Your task to perform on an android device: delete browsing data in the chrome app Image 0: 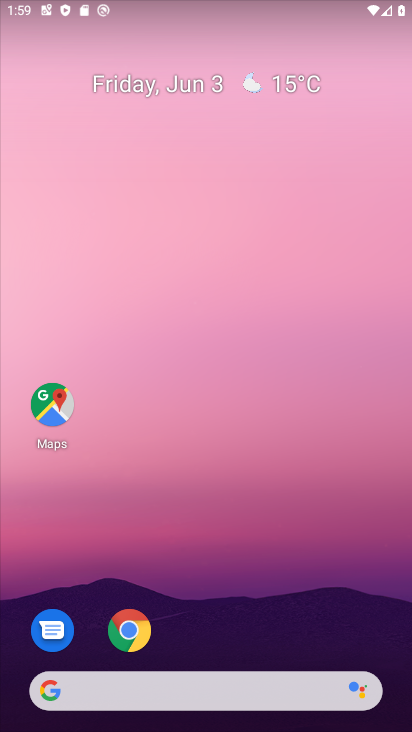
Step 0: drag from (224, 350) to (201, 10)
Your task to perform on an android device: delete browsing data in the chrome app Image 1: 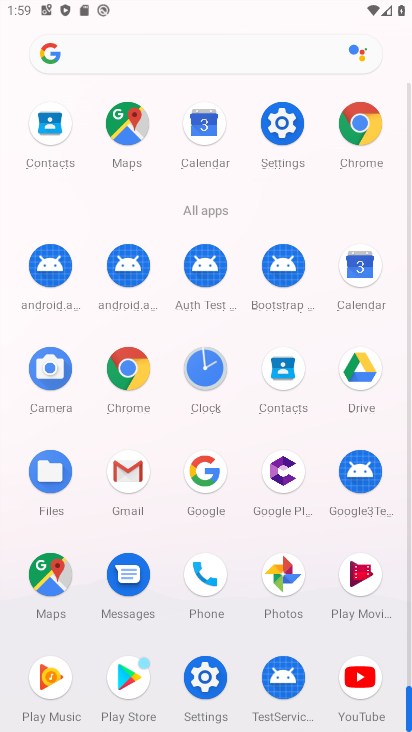
Step 1: drag from (15, 537) to (9, 181)
Your task to perform on an android device: delete browsing data in the chrome app Image 2: 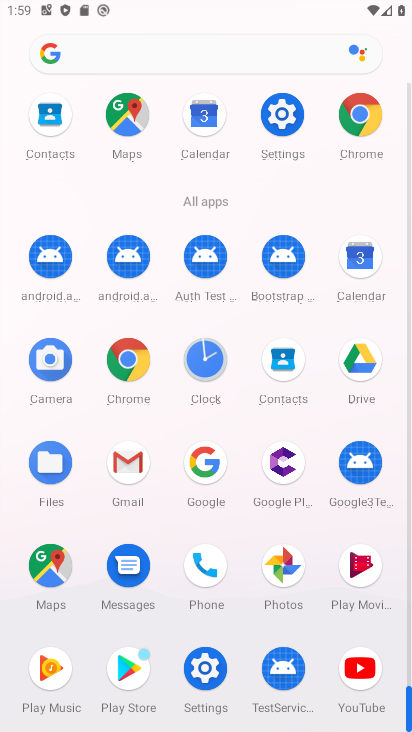
Step 2: click (125, 354)
Your task to perform on an android device: delete browsing data in the chrome app Image 3: 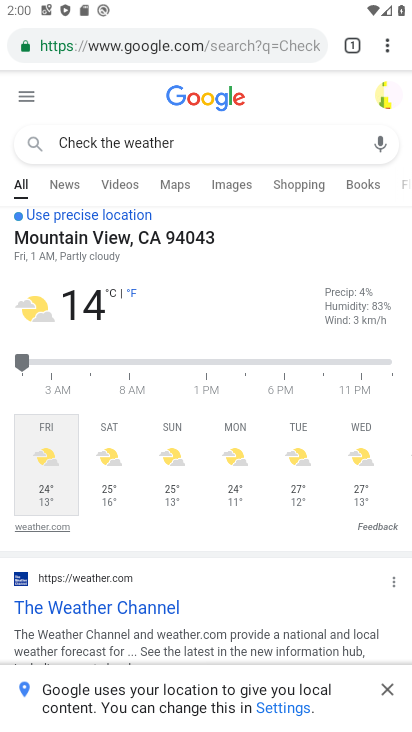
Step 3: click (138, 44)
Your task to perform on an android device: delete browsing data in the chrome app Image 4: 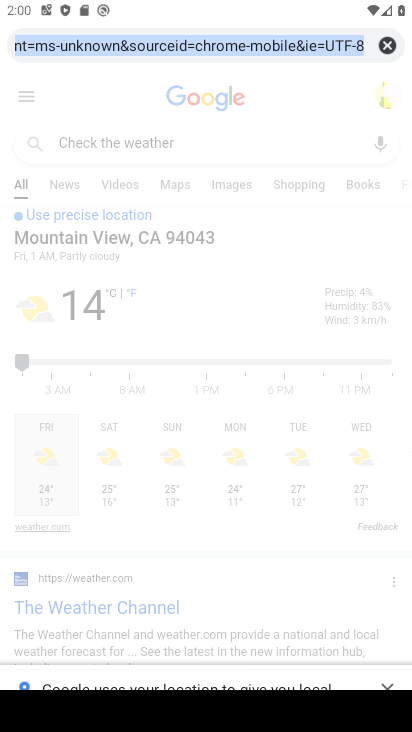
Step 4: click (383, 46)
Your task to perform on an android device: delete browsing data in the chrome app Image 5: 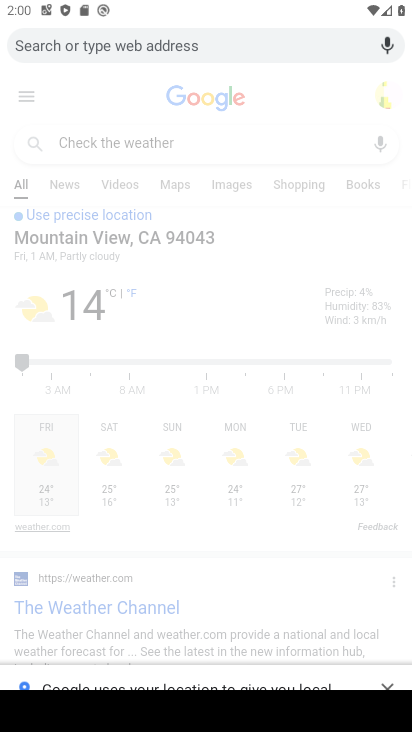
Step 5: task complete